Your task to perform on an android device: search for starred emails in the gmail app Image 0: 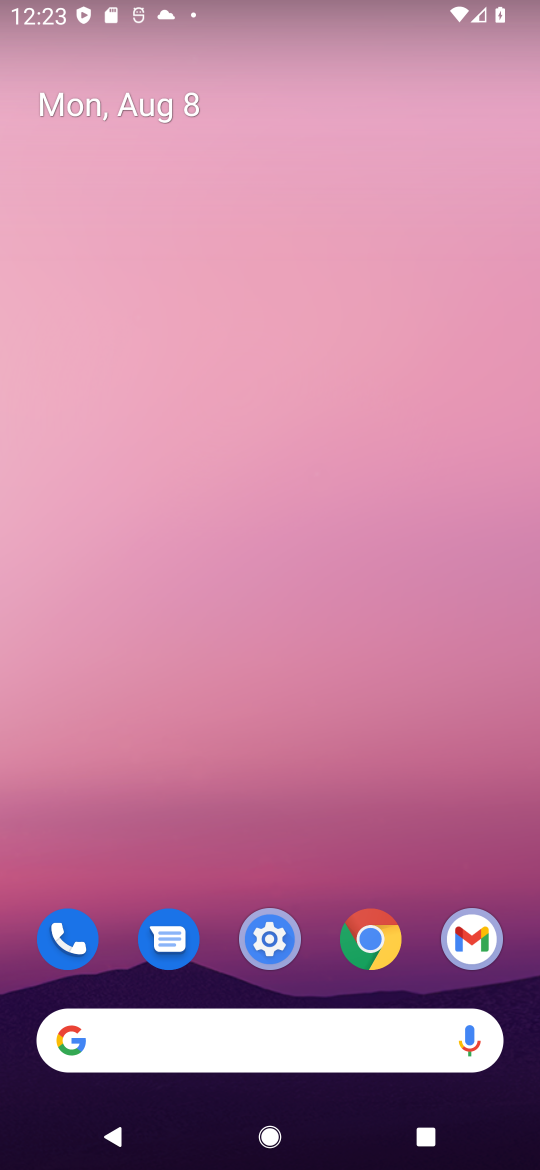
Step 0: drag from (303, 1037) to (405, 151)
Your task to perform on an android device: search for starred emails in the gmail app Image 1: 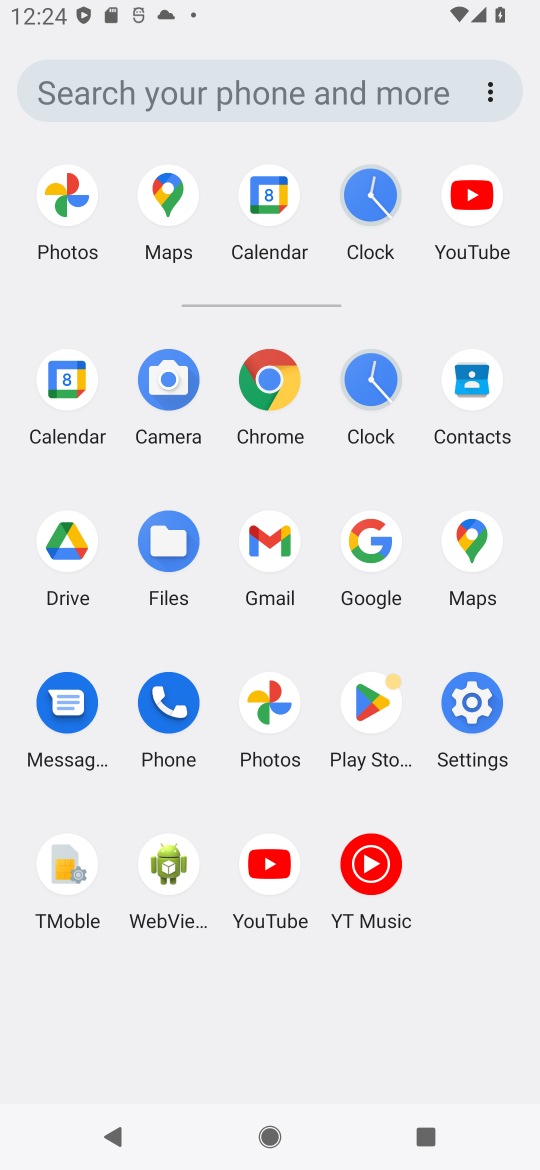
Step 1: click (270, 539)
Your task to perform on an android device: search for starred emails in the gmail app Image 2: 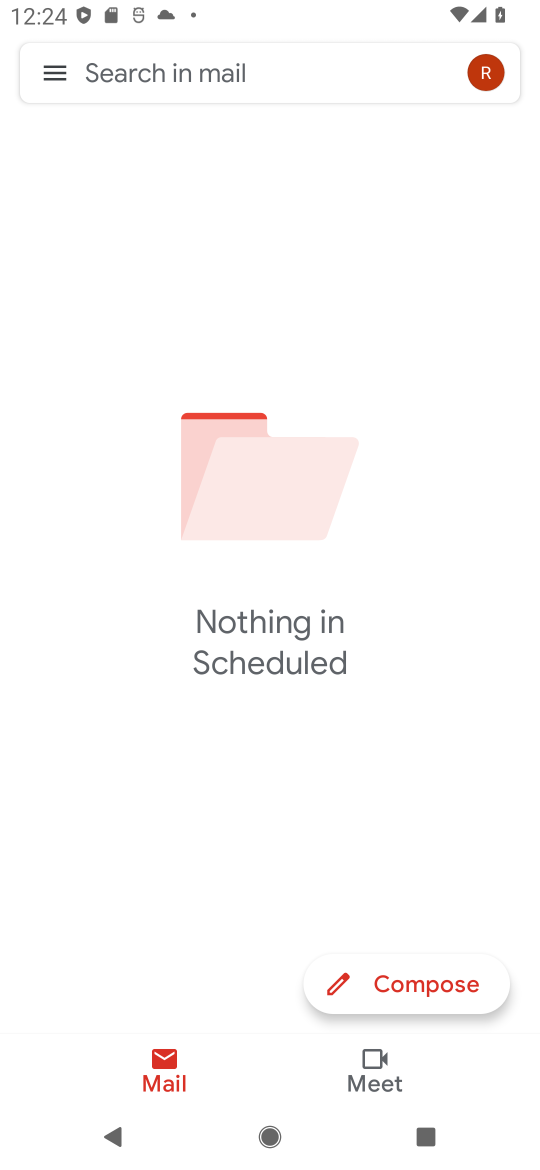
Step 2: click (61, 85)
Your task to perform on an android device: search for starred emails in the gmail app Image 3: 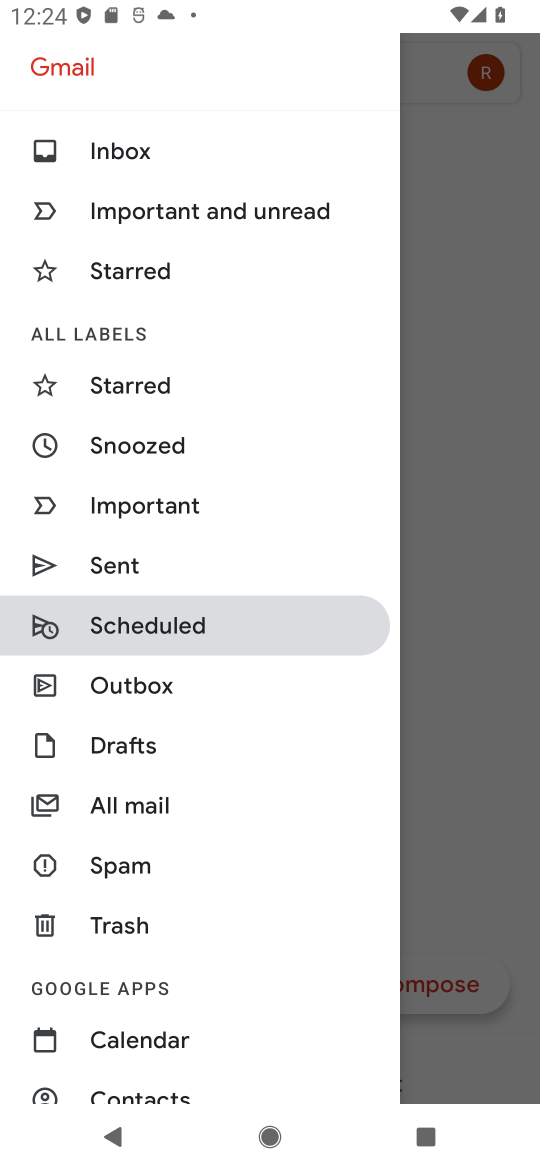
Step 3: click (163, 384)
Your task to perform on an android device: search for starred emails in the gmail app Image 4: 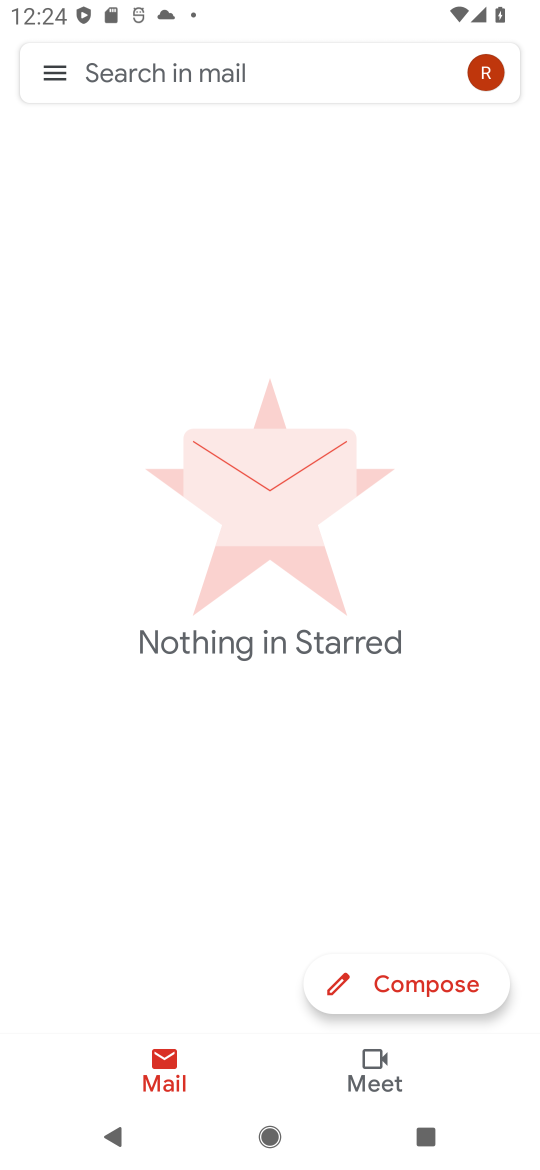
Step 4: task complete